Your task to perform on an android device: find photos in the google photos app Image 0: 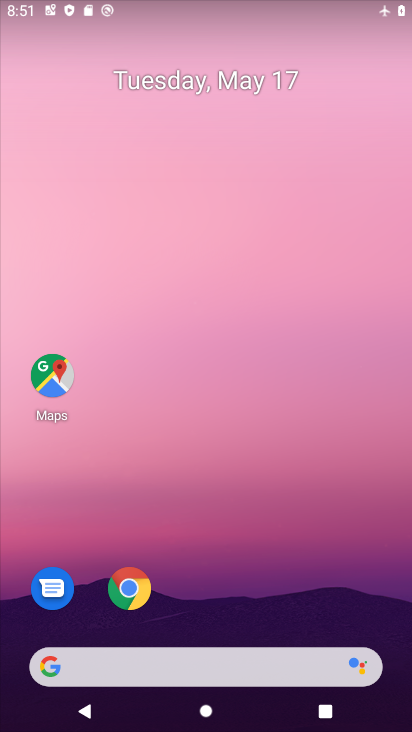
Step 0: click (329, 294)
Your task to perform on an android device: find photos in the google photos app Image 1: 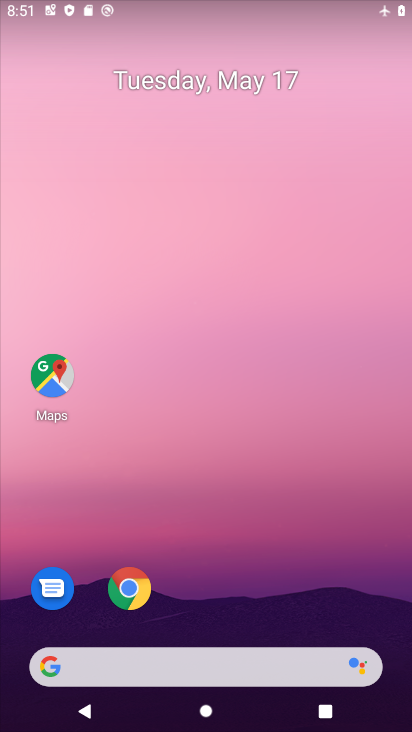
Step 1: drag from (399, 713) to (410, 132)
Your task to perform on an android device: find photos in the google photos app Image 2: 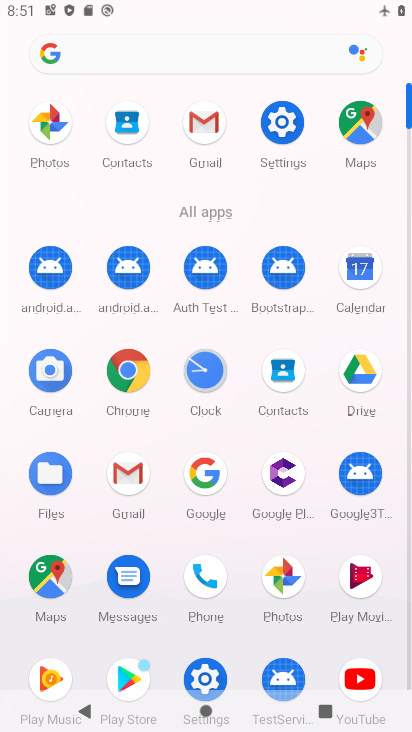
Step 2: click (275, 575)
Your task to perform on an android device: find photos in the google photos app Image 3: 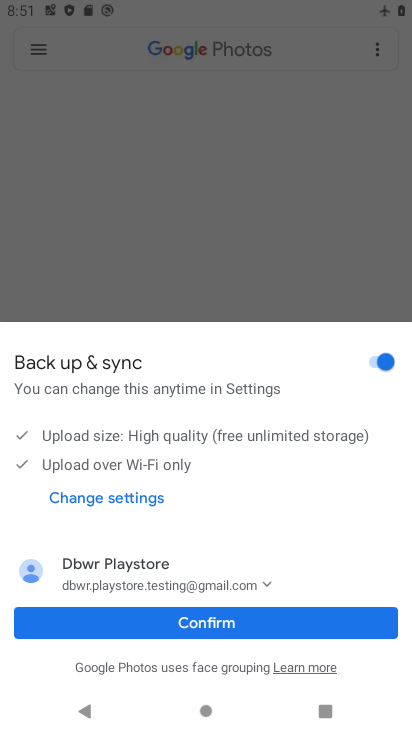
Step 3: click (254, 616)
Your task to perform on an android device: find photos in the google photos app Image 4: 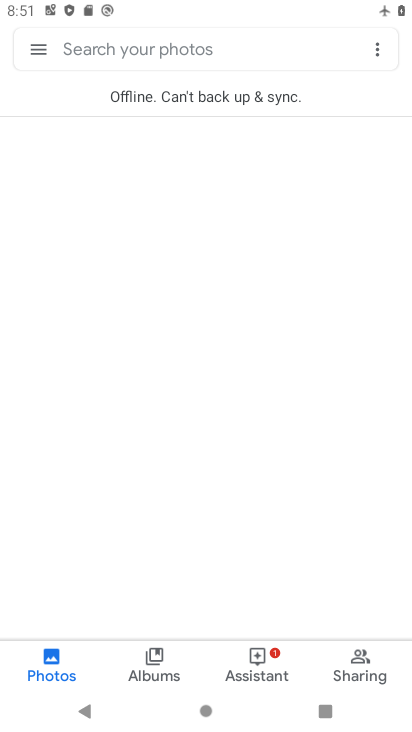
Step 4: task complete